Your task to perform on an android device: change timer sound Image 0: 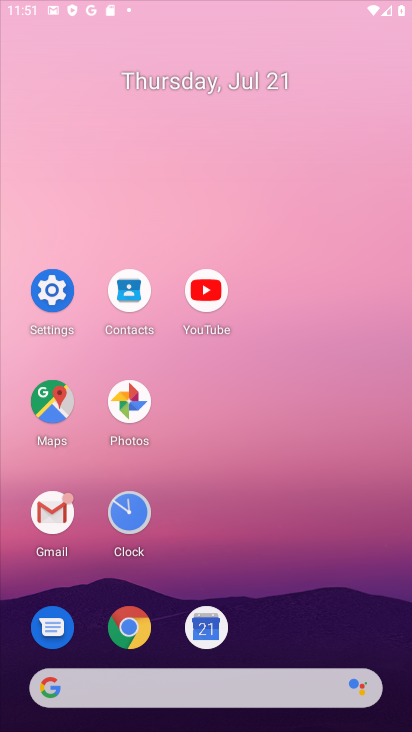
Step 0: click (206, 627)
Your task to perform on an android device: change timer sound Image 1: 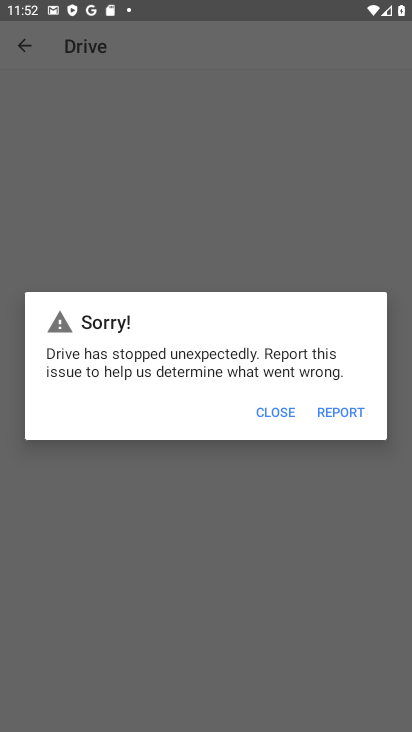
Step 1: press home button
Your task to perform on an android device: change timer sound Image 2: 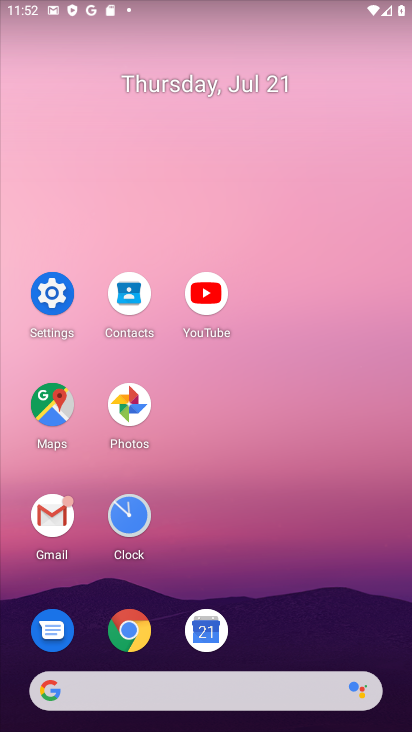
Step 2: click (125, 512)
Your task to perform on an android device: change timer sound Image 3: 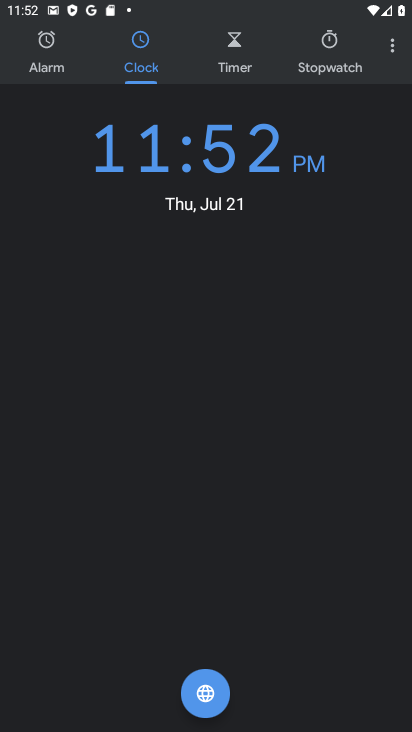
Step 3: click (395, 46)
Your task to perform on an android device: change timer sound Image 4: 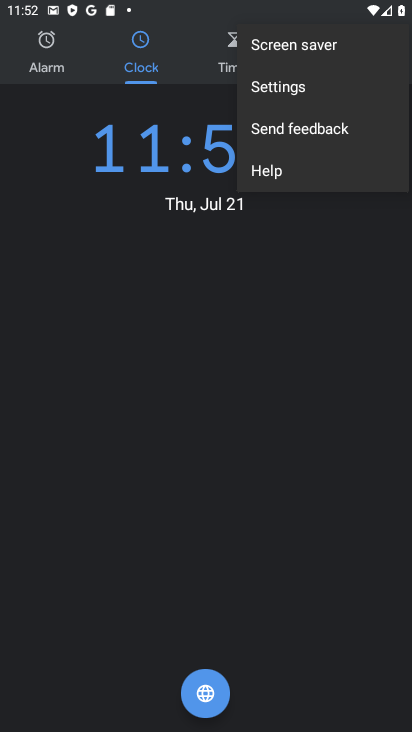
Step 4: click (285, 87)
Your task to perform on an android device: change timer sound Image 5: 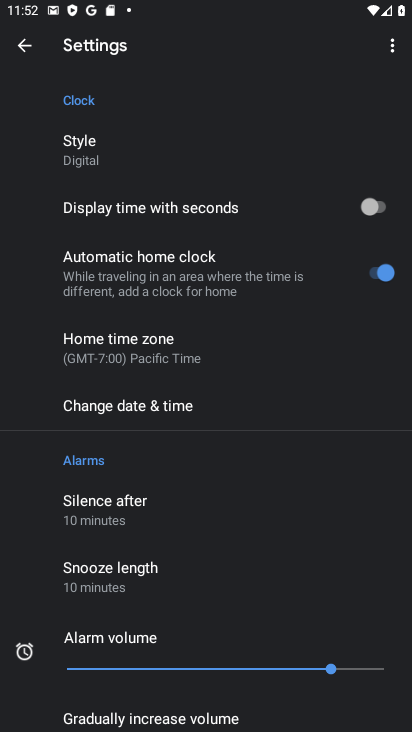
Step 5: drag from (240, 540) to (216, 193)
Your task to perform on an android device: change timer sound Image 6: 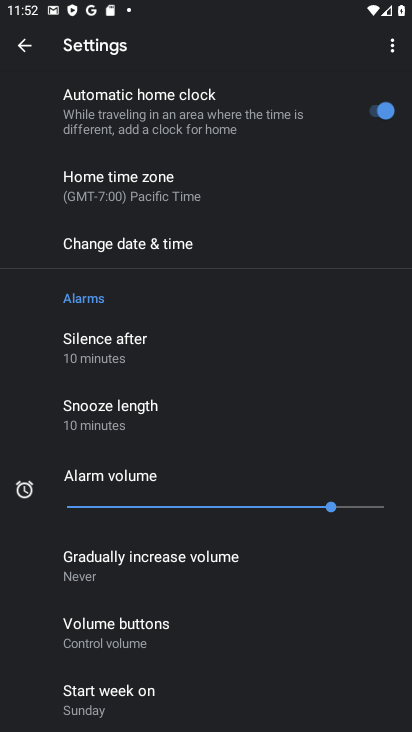
Step 6: drag from (194, 649) to (168, 404)
Your task to perform on an android device: change timer sound Image 7: 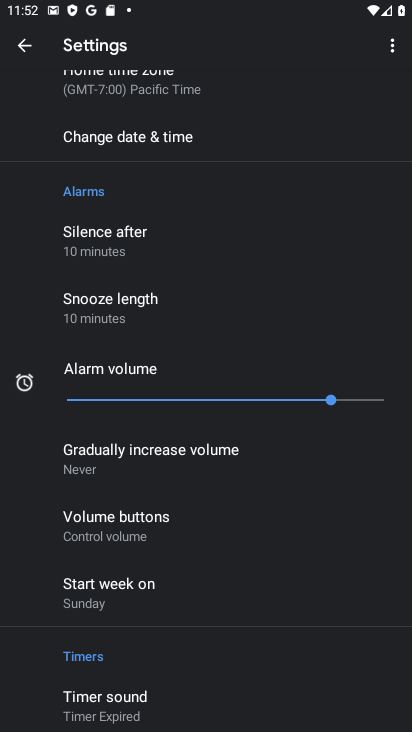
Step 7: click (115, 702)
Your task to perform on an android device: change timer sound Image 8: 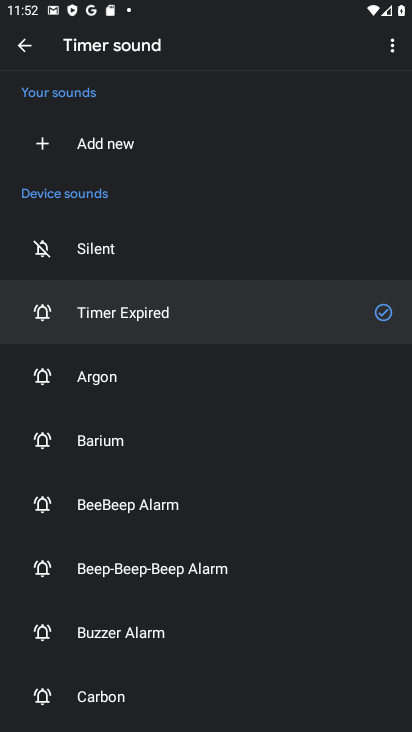
Step 8: click (100, 395)
Your task to perform on an android device: change timer sound Image 9: 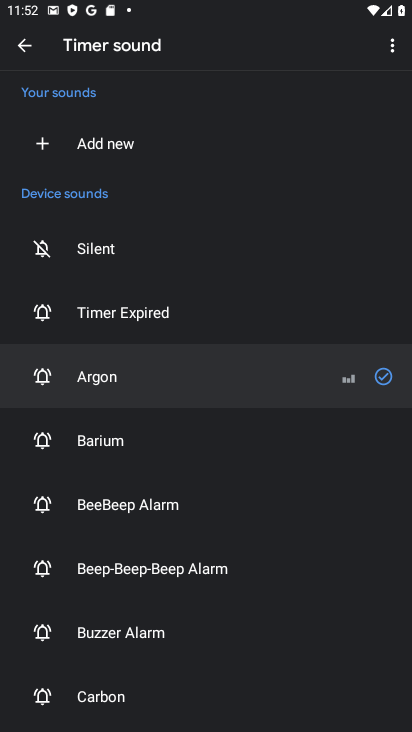
Step 9: task complete